Your task to perform on an android device: stop showing notifications on the lock screen Image 0: 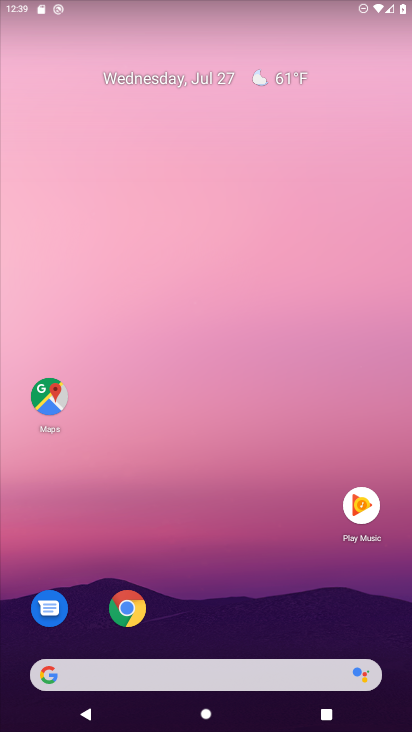
Step 0: press home button
Your task to perform on an android device: stop showing notifications on the lock screen Image 1: 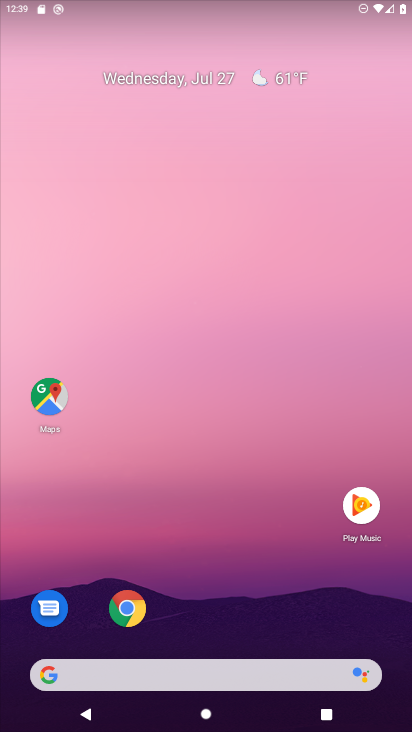
Step 1: drag from (296, 608) to (277, 147)
Your task to perform on an android device: stop showing notifications on the lock screen Image 2: 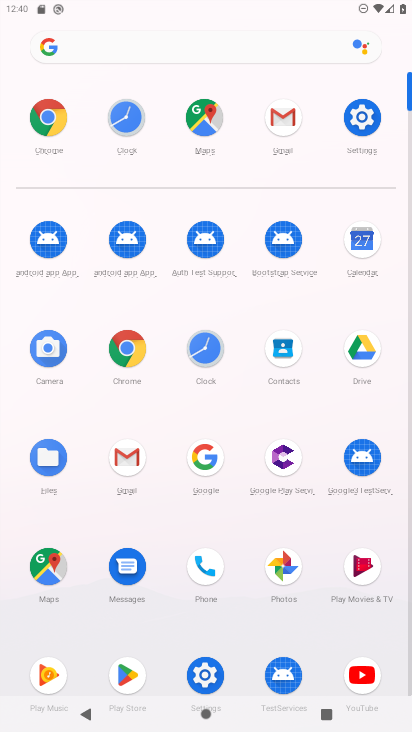
Step 2: click (368, 125)
Your task to perform on an android device: stop showing notifications on the lock screen Image 3: 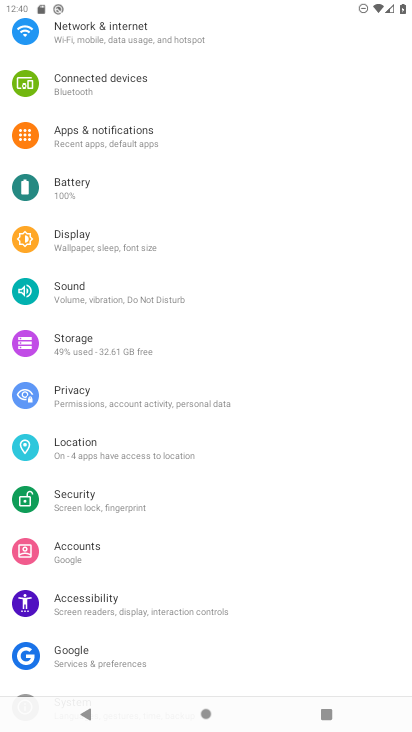
Step 3: drag from (325, 435) to (328, 360)
Your task to perform on an android device: stop showing notifications on the lock screen Image 4: 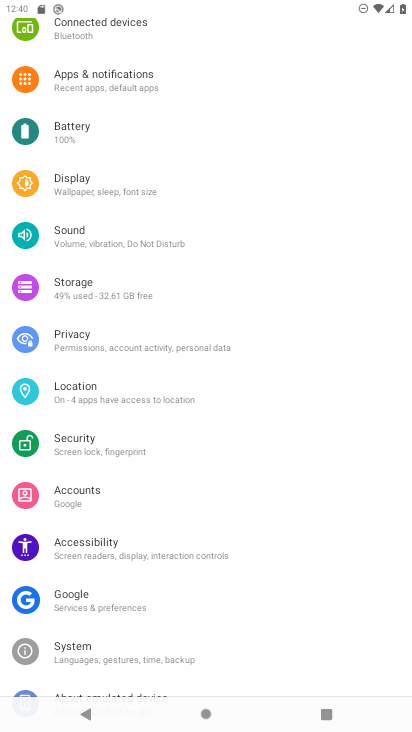
Step 4: drag from (324, 477) to (320, 407)
Your task to perform on an android device: stop showing notifications on the lock screen Image 5: 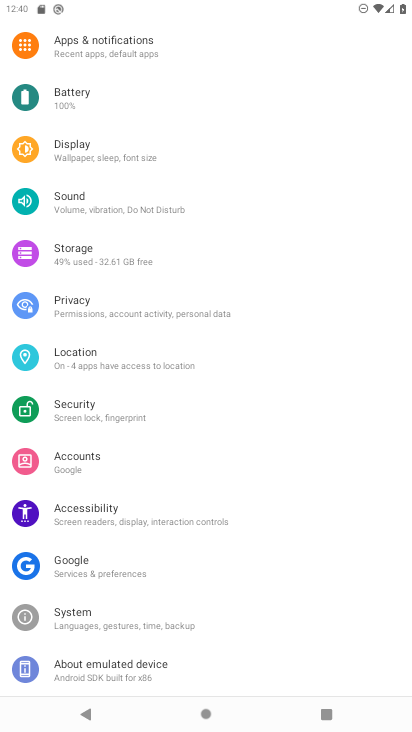
Step 5: drag from (307, 356) to (307, 411)
Your task to perform on an android device: stop showing notifications on the lock screen Image 6: 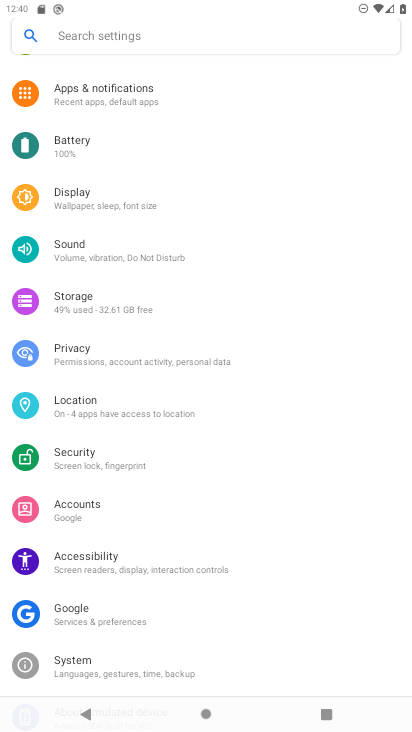
Step 6: drag from (302, 307) to (303, 374)
Your task to perform on an android device: stop showing notifications on the lock screen Image 7: 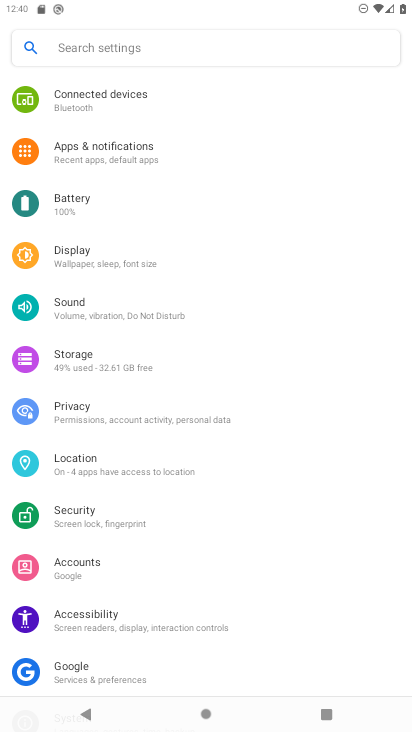
Step 7: drag from (318, 277) to (318, 386)
Your task to perform on an android device: stop showing notifications on the lock screen Image 8: 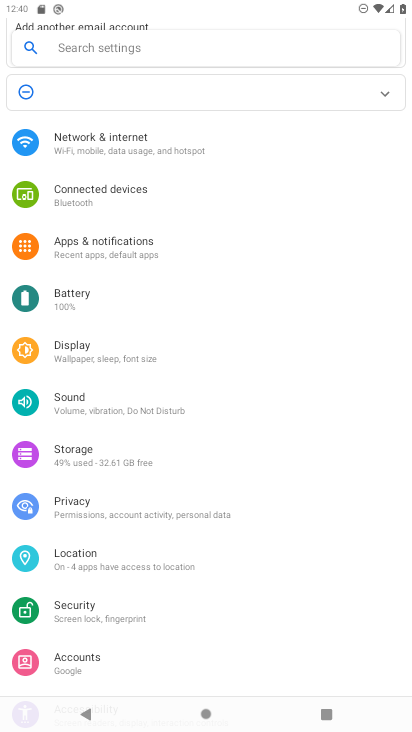
Step 8: drag from (317, 279) to (325, 406)
Your task to perform on an android device: stop showing notifications on the lock screen Image 9: 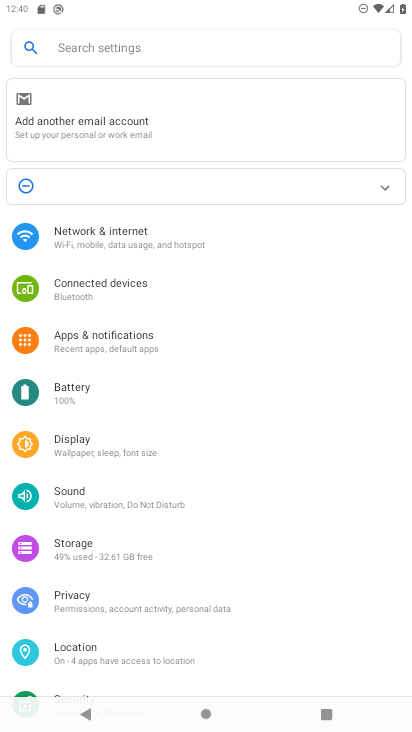
Step 9: click (166, 351)
Your task to perform on an android device: stop showing notifications on the lock screen Image 10: 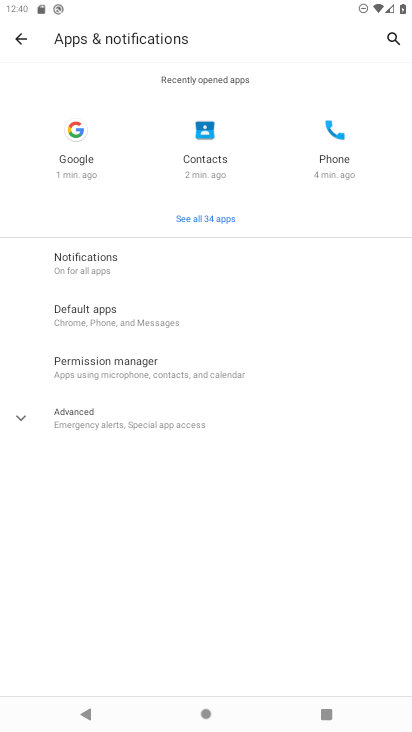
Step 10: click (163, 275)
Your task to perform on an android device: stop showing notifications on the lock screen Image 11: 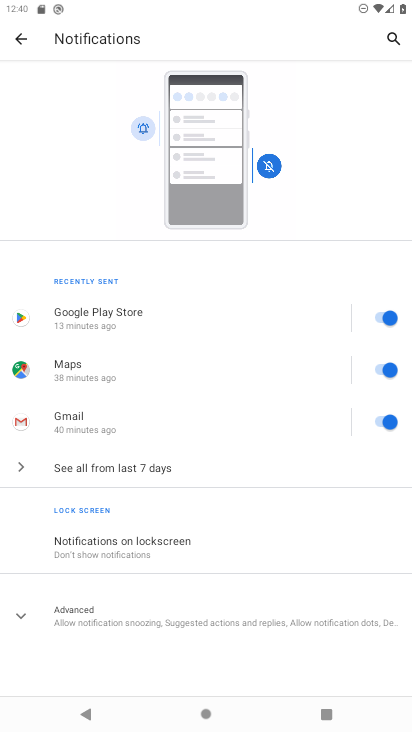
Step 11: click (220, 551)
Your task to perform on an android device: stop showing notifications on the lock screen Image 12: 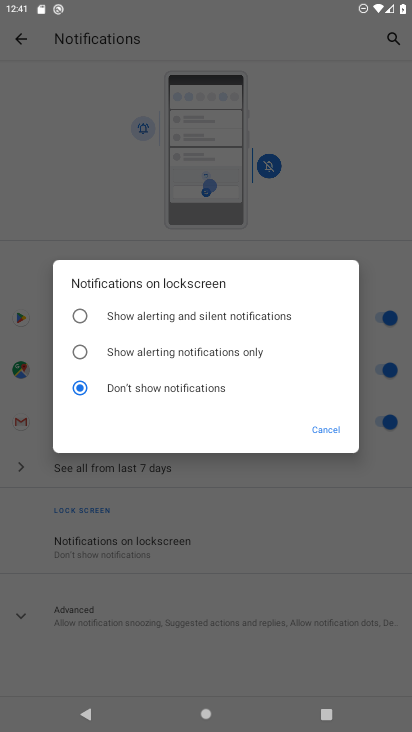
Step 12: task complete